Your task to perform on an android device: turn on translation in the chrome app Image 0: 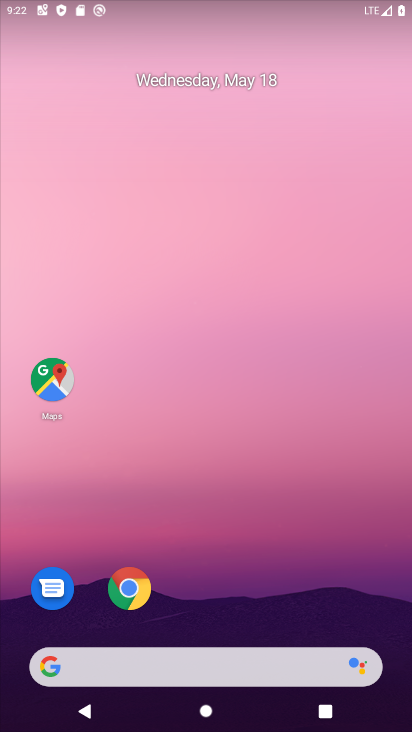
Step 0: click (133, 593)
Your task to perform on an android device: turn on translation in the chrome app Image 1: 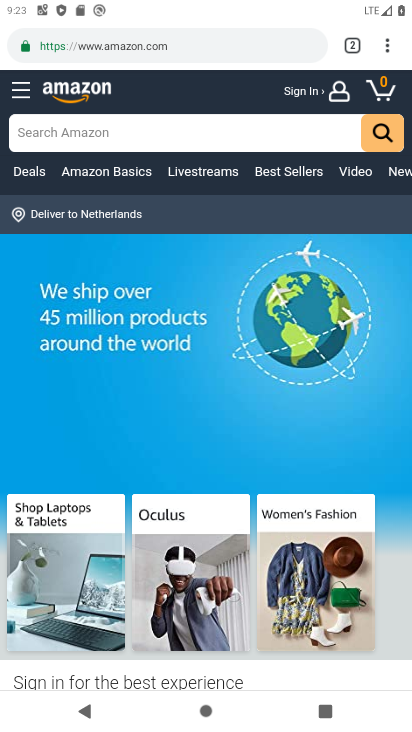
Step 1: click (390, 45)
Your task to perform on an android device: turn on translation in the chrome app Image 2: 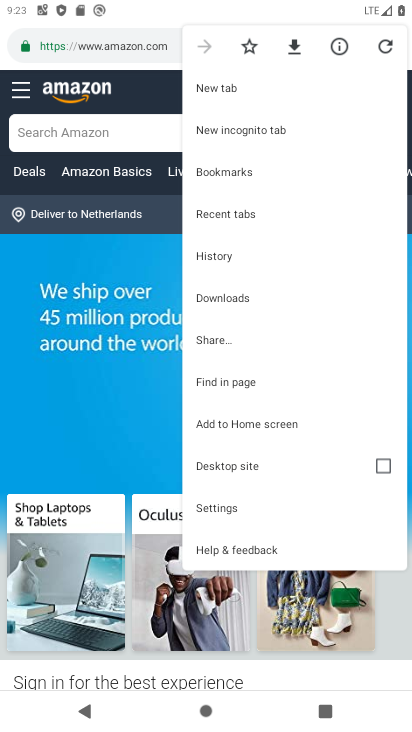
Step 2: click (212, 511)
Your task to perform on an android device: turn on translation in the chrome app Image 3: 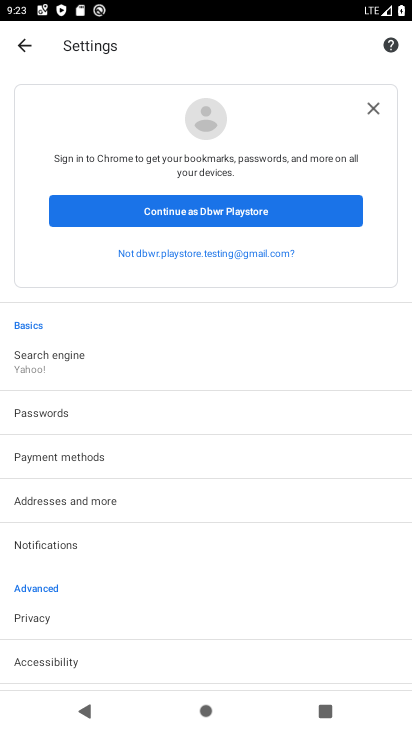
Step 3: drag from (256, 621) to (254, 311)
Your task to perform on an android device: turn on translation in the chrome app Image 4: 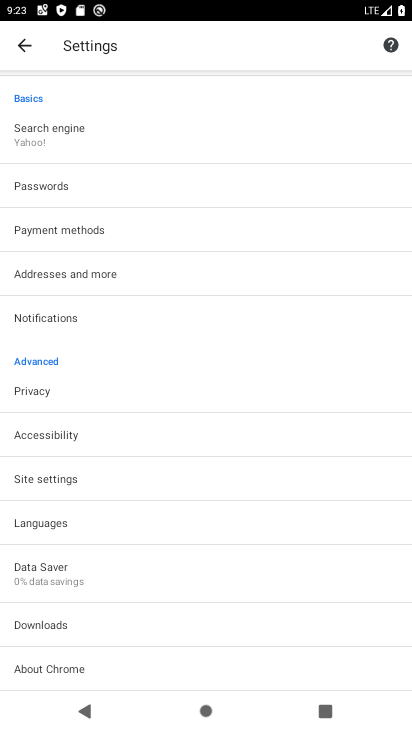
Step 4: click (68, 523)
Your task to perform on an android device: turn on translation in the chrome app Image 5: 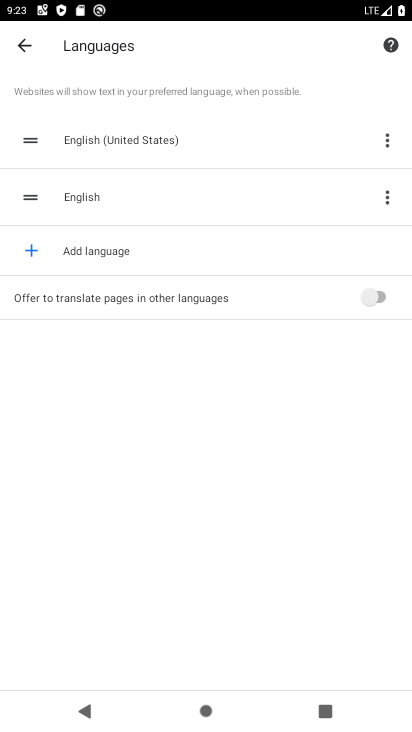
Step 5: click (371, 295)
Your task to perform on an android device: turn on translation in the chrome app Image 6: 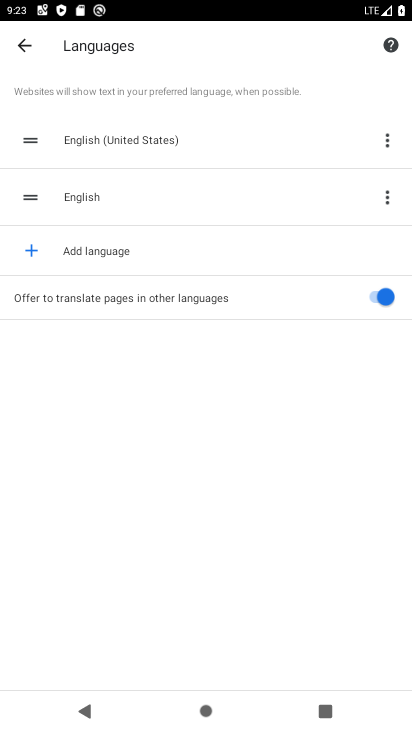
Step 6: task complete